Your task to perform on an android device: check out phone information Image 0: 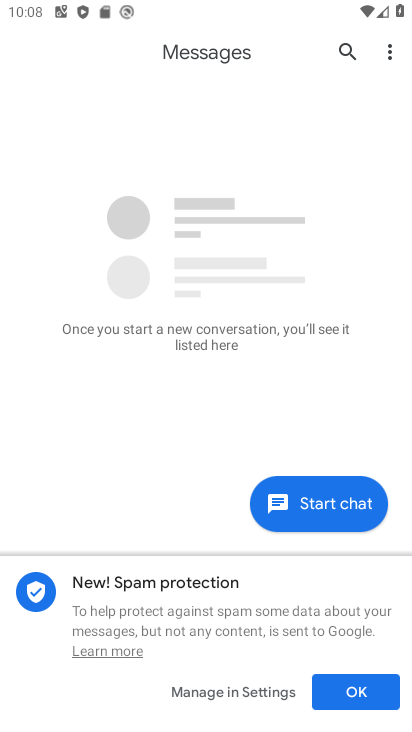
Step 0: press home button
Your task to perform on an android device: check out phone information Image 1: 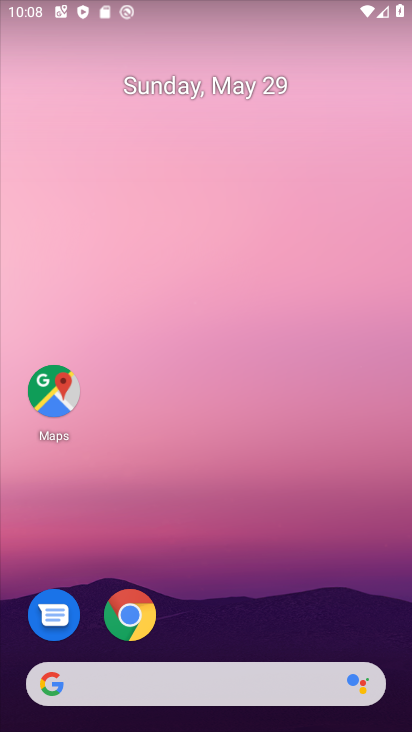
Step 1: drag from (188, 651) to (155, 83)
Your task to perform on an android device: check out phone information Image 2: 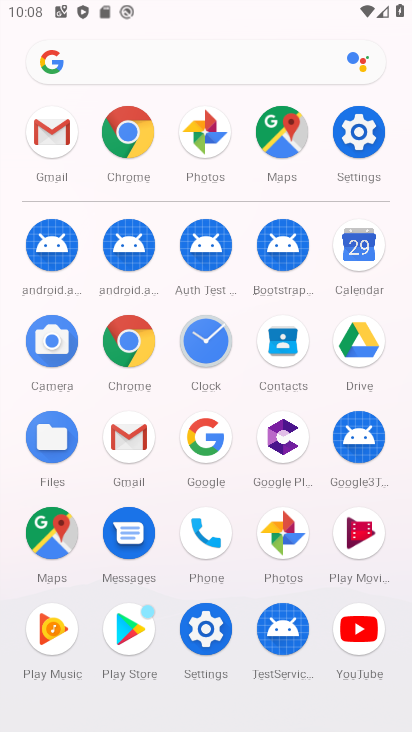
Step 2: click (355, 127)
Your task to perform on an android device: check out phone information Image 3: 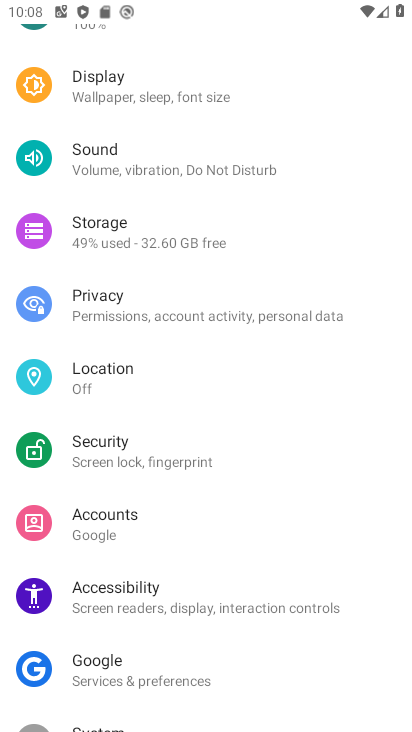
Step 3: task complete